Your task to perform on an android device: move an email to a new category in the gmail app Image 0: 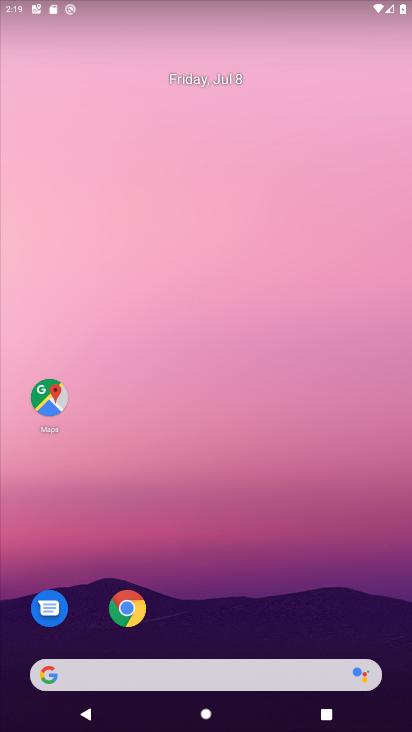
Step 0: drag from (212, 565) to (217, 274)
Your task to perform on an android device: move an email to a new category in the gmail app Image 1: 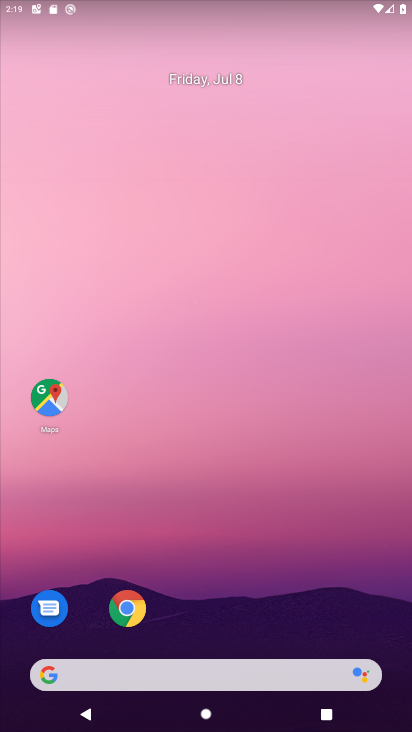
Step 1: drag from (251, 652) to (178, 245)
Your task to perform on an android device: move an email to a new category in the gmail app Image 2: 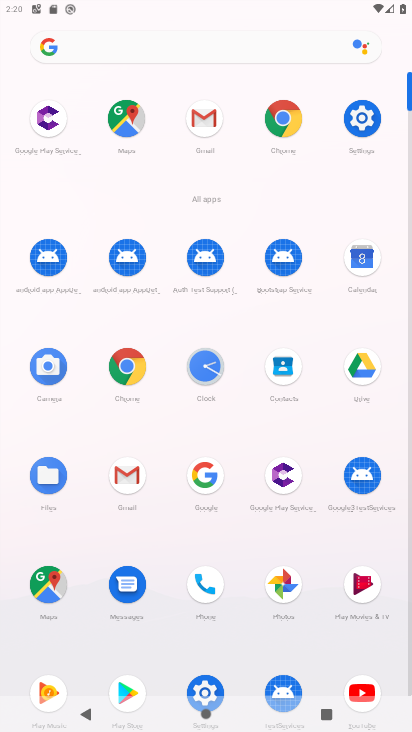
Step 2: click (114, 476)
Your task to perform on an android device: move an email to a new category in the gmail app Image 3: 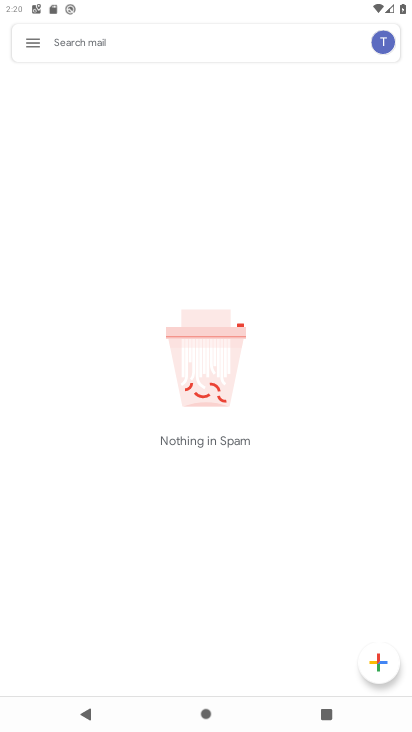
Step 3: click (31, 31)
Your task to perform on an android device: move an email to a new category in the gmail app Image 4: 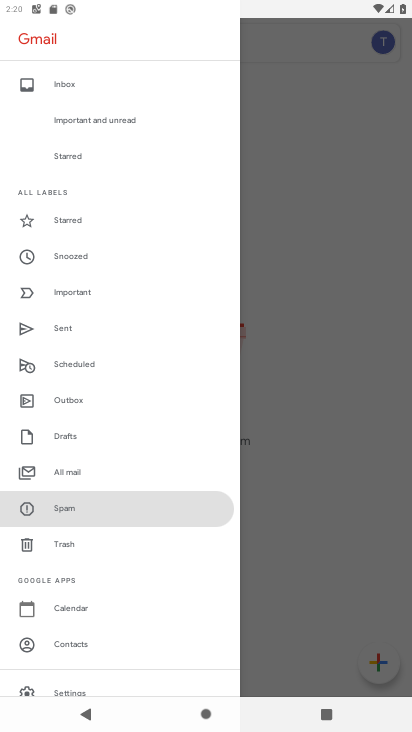
Step 4: click (91, 472)
Your task to perform on an android device: move an email to a new category in the gmail app Image 5: 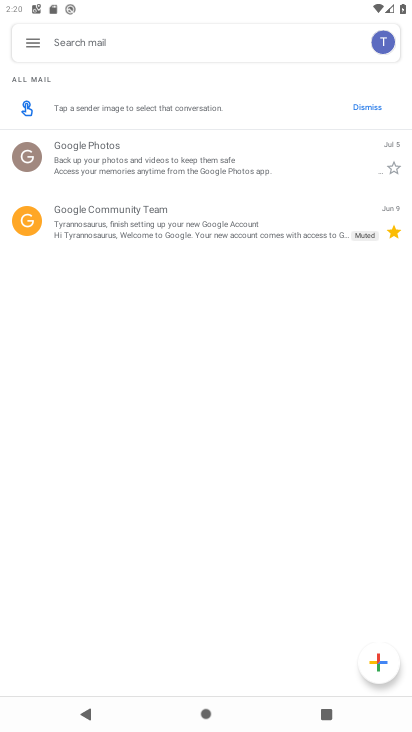
Step 5: click (104, 161)
Your task to perform on an android device: move an email to a new category in the gmail app Image 6: 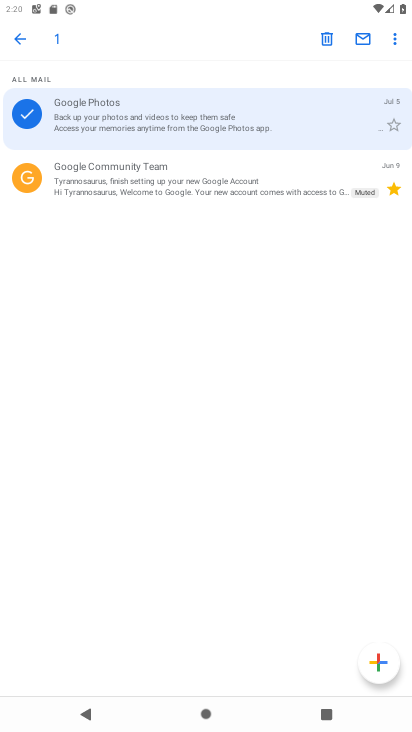
Step 6: click (393, 29)
Your task to perform on an android device: move an email to a new category in the gmail app Image 7: 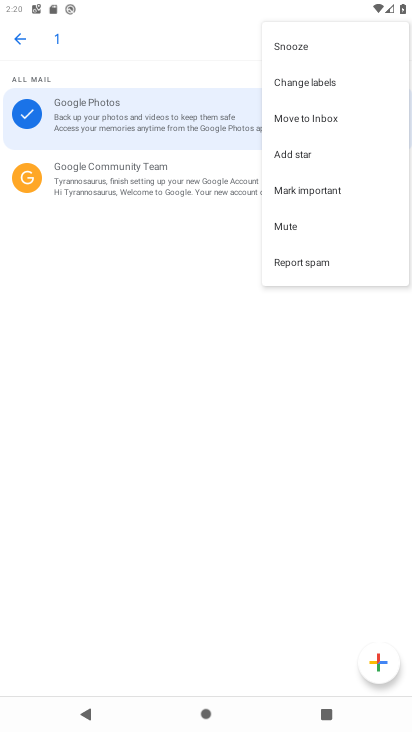
Step 7: click (305, 124)
Your task to perform on an android device: move an email to a new category in the gmail app Image 8: 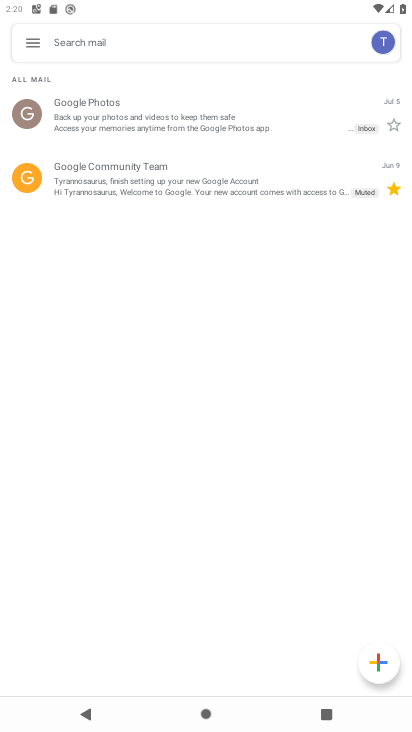
Step 8: click (149, 122)
Your task to perform on an android device: move an email to a new category in the gmail app Image 9: 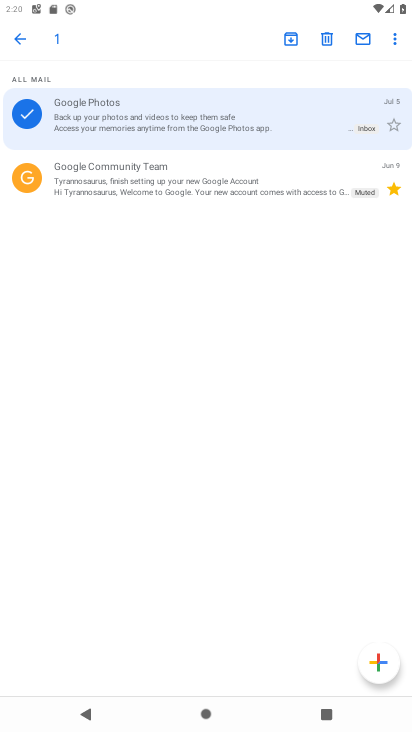
Step 9: click (392, 32)
Your task to perform on an android device: move an email to a new category in the gmail app Image 10: 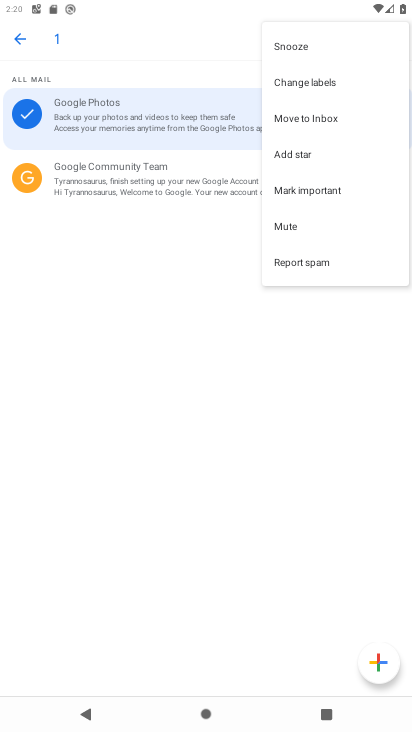
Step 10: click (305, 116)
Your task to perform on an android device: move an email to a new category in the gmail app Image 11: 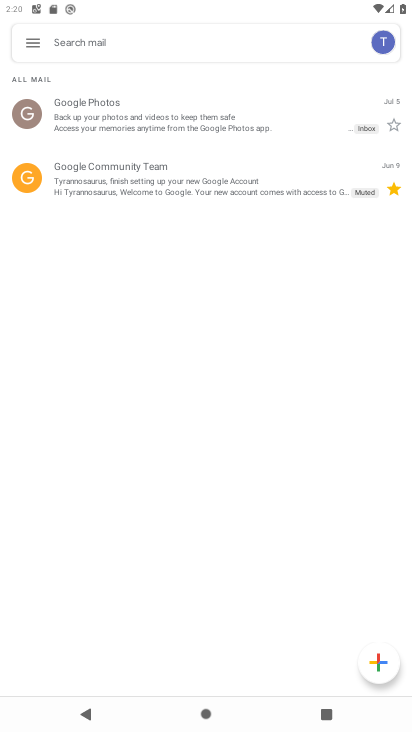
Step 11: task complete